Your task to perform on an android device: Toggle notifications for the Google Maps app Image 0: 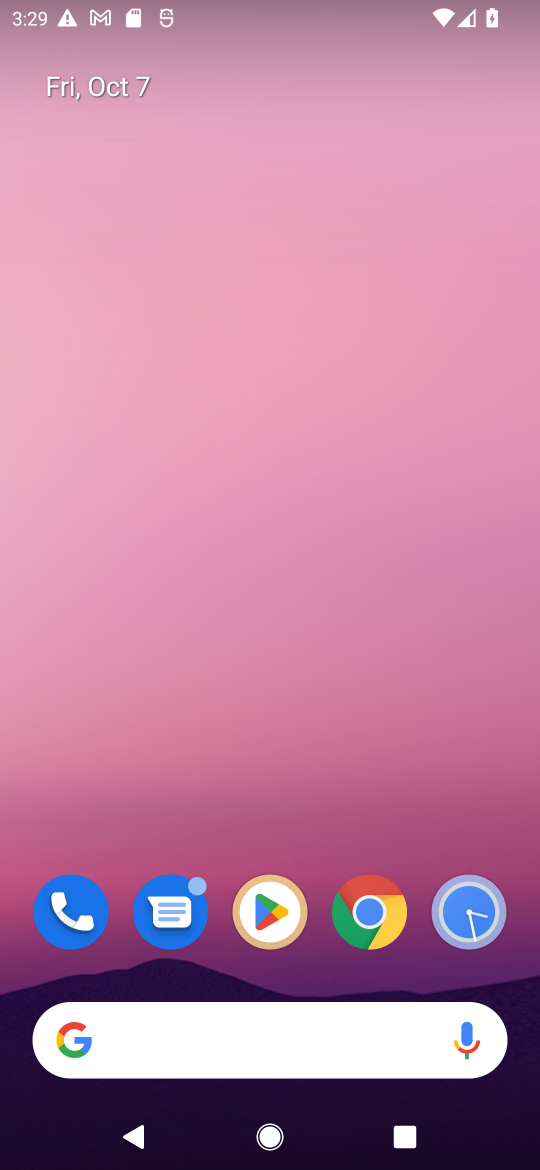
Step 0: drag from (284, 852) to (284, 258)
Your task to perform on an android device: Toggle notifications for the Google Maps app Image 1: 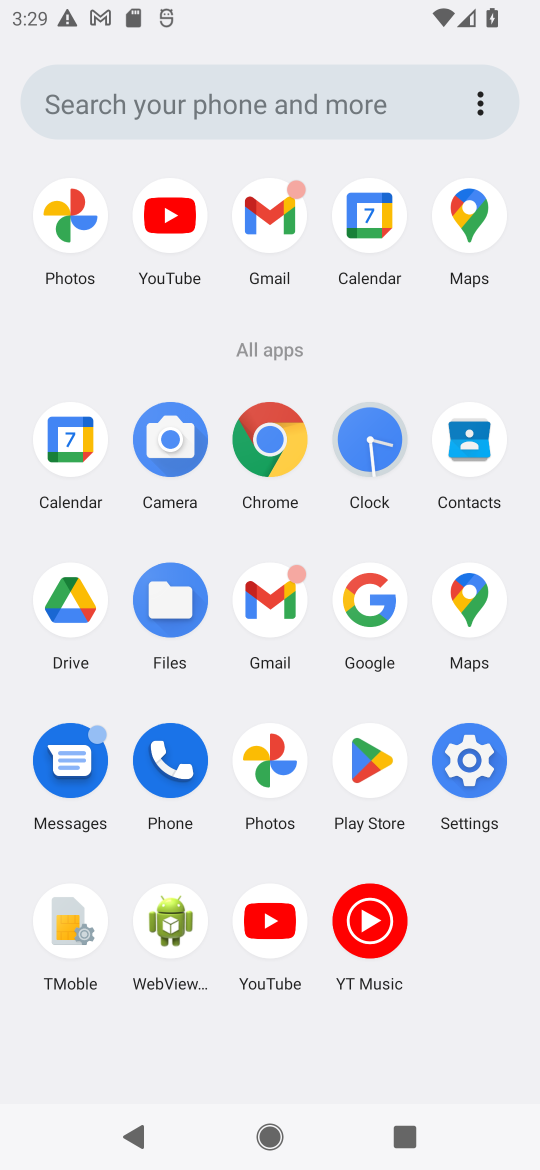
Step 1: click (464, 582)
Your task to perform on an android device: Toggle notifications for the Google Maps app Image 2: 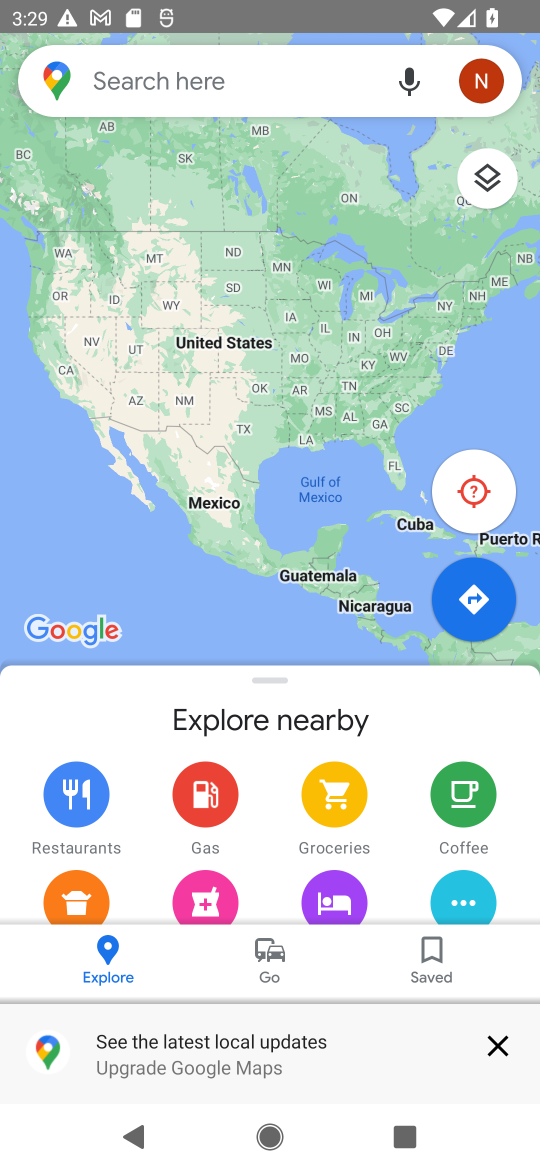
Step 2: click (489, 1047)
Your task to perform on an android device: Toggle notifications for the Google Maps app Image 3: 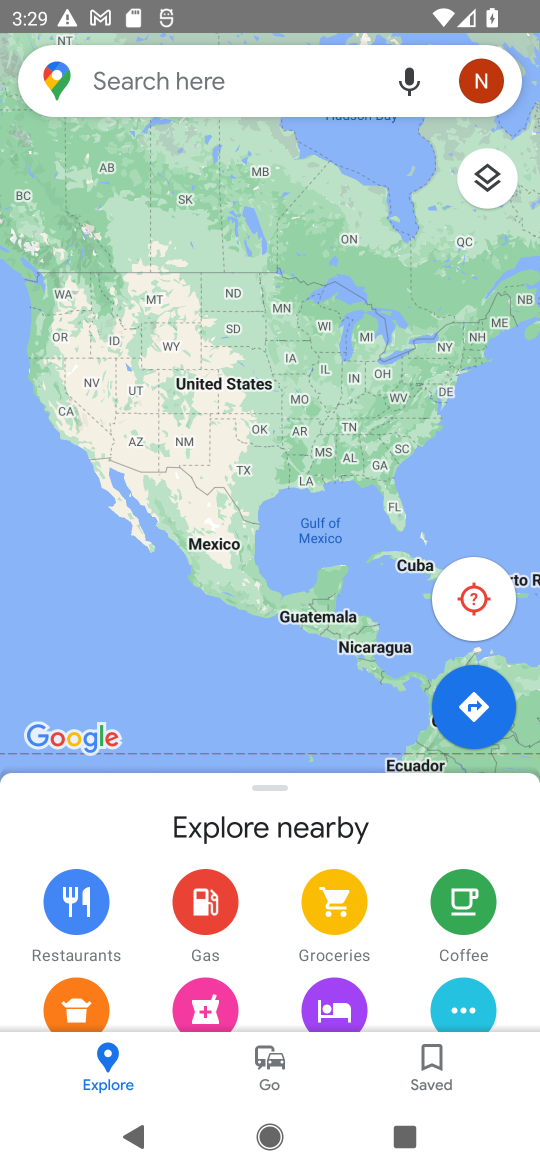
Step 3: click (483, 77)
Your task to perform on an android device: Toggle notifications for the Google Maps app Image 4: 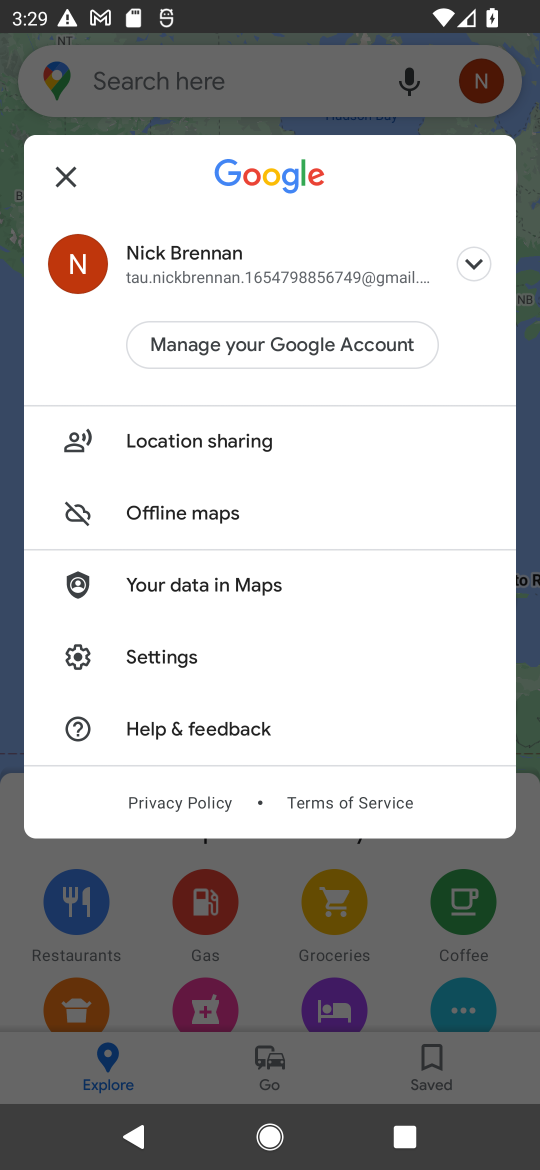
Step 4: click (47, 173)
Your task to perform on an android device: Toggle notifications for the Google Maps app Image 5: 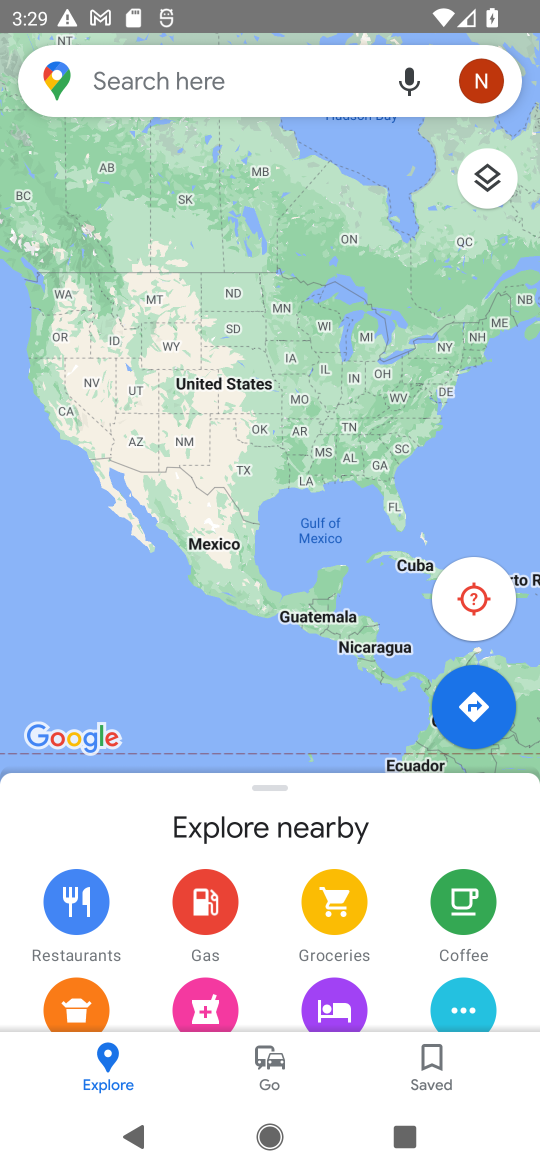
Step 5: task complete